Your task to perform on an android device: Empty the shopping cart on target. Add "asus rog" to the cart on target Image 0: 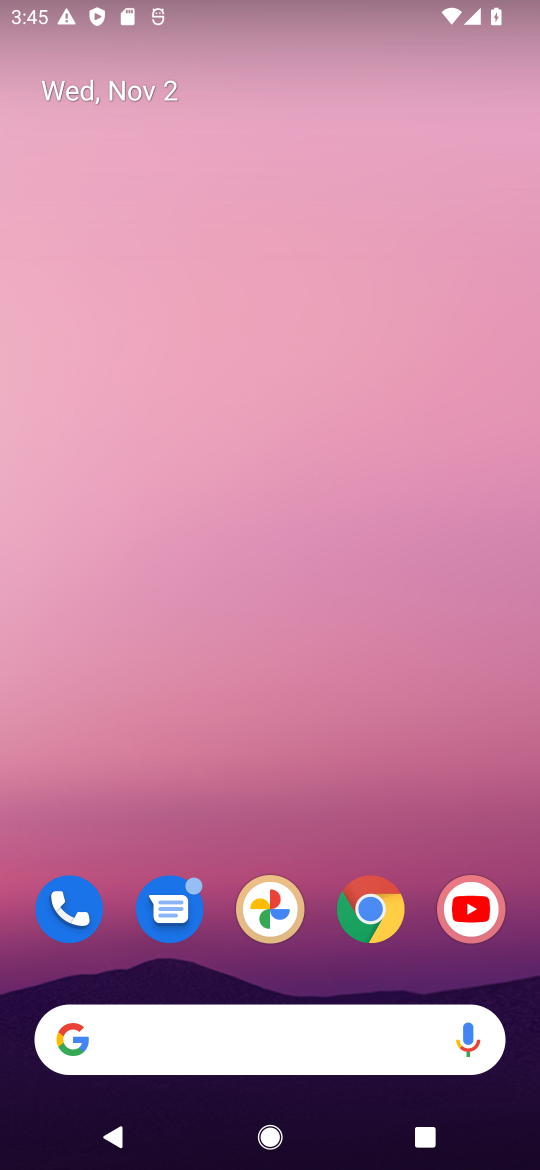
Step 0: click (364, 908)
Your task to perform on an android device: Empty the shopping cart on target. Add "asus rog" to the cart on target Image 1: 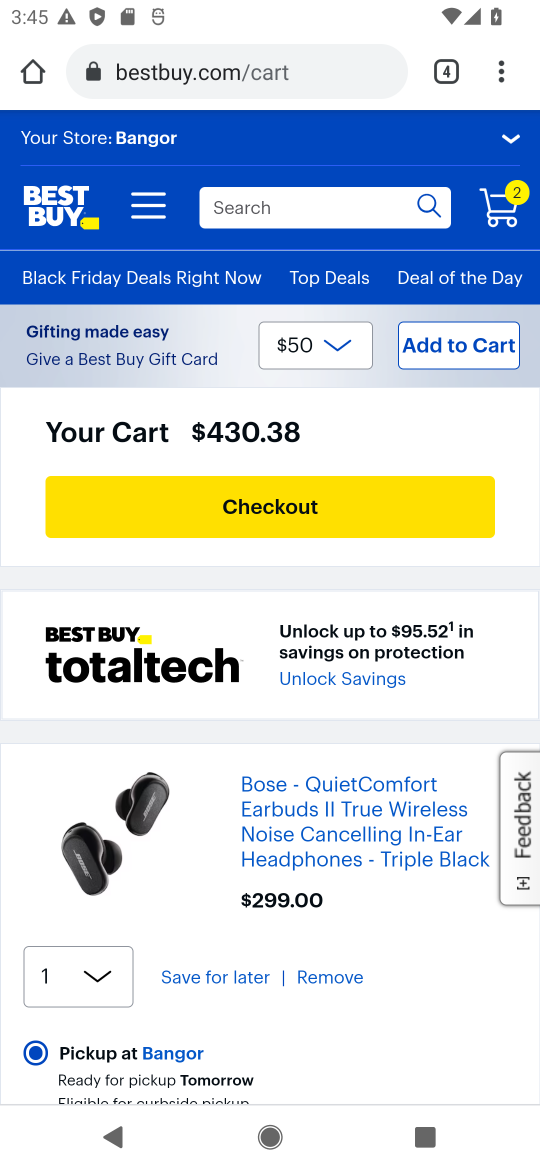
Step 1: click (292, 75)
Your task to perform on an android device: Empty the shopping cart on target. Add "asus rog" to the cart on target Image 2: 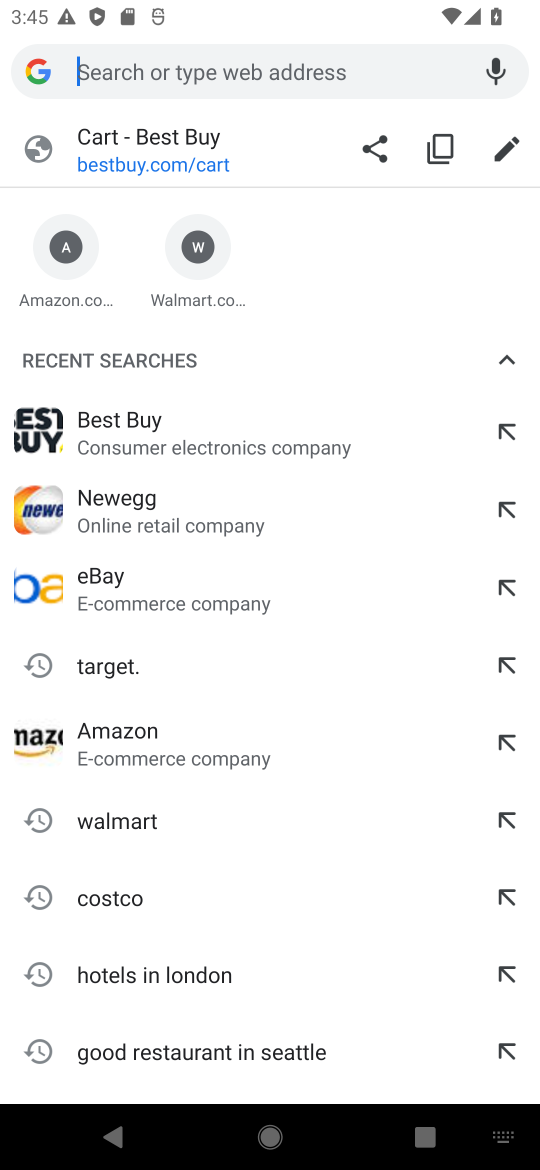
Step 2: click (77, 669)
Your task to perform on an android device: Empty the shopping cart on target. Add "asus rog" to the cart on target Image 3: 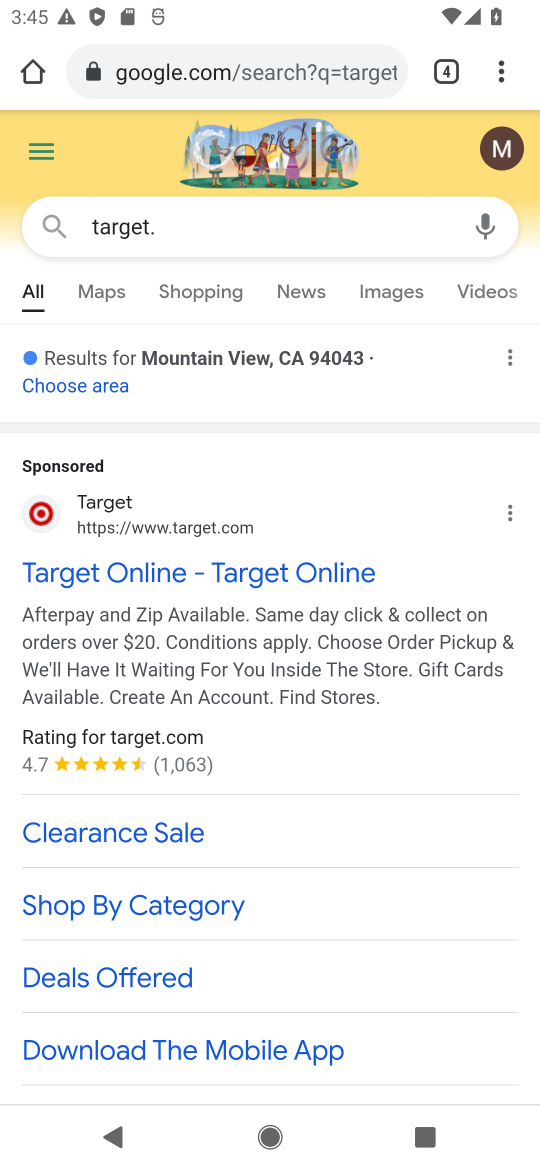
Step 3: click (164, 573)
Your task to perform on an android device: Empty the shopping cart on target. Add "asus rog" to the cart on target Image 4: 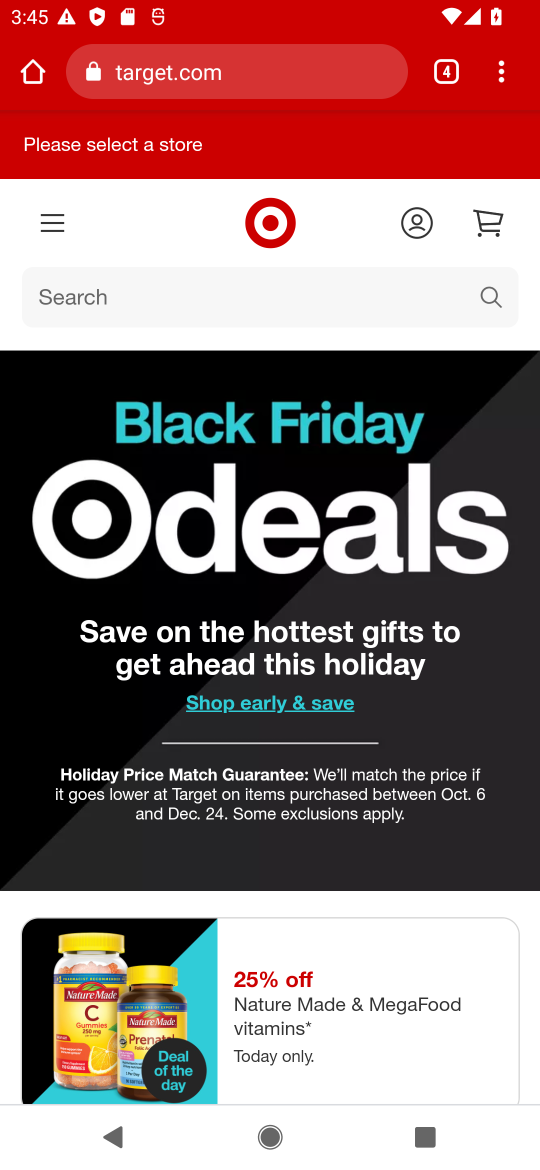
Step 4: click (426, 292)
Your task to perform on an android device: Empty the shopping cart on target. Add "asus rog" to the cart on target Image 5: 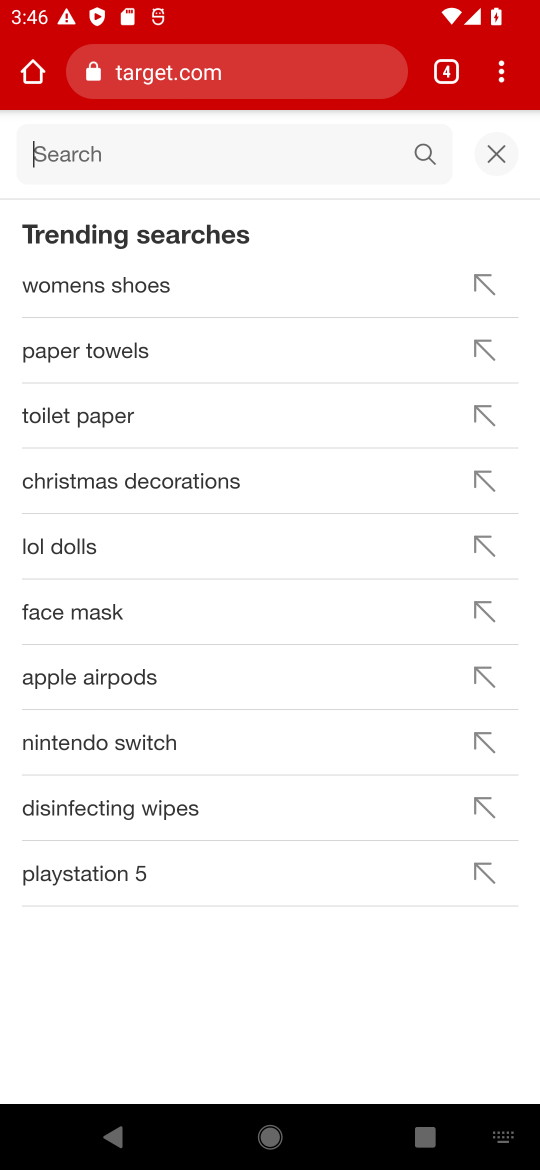
Step 5: click (204, 152)
Your task to perform on an android device: Empty the shopping cart on target. Add "asus rog" to the cart on target Image 6: 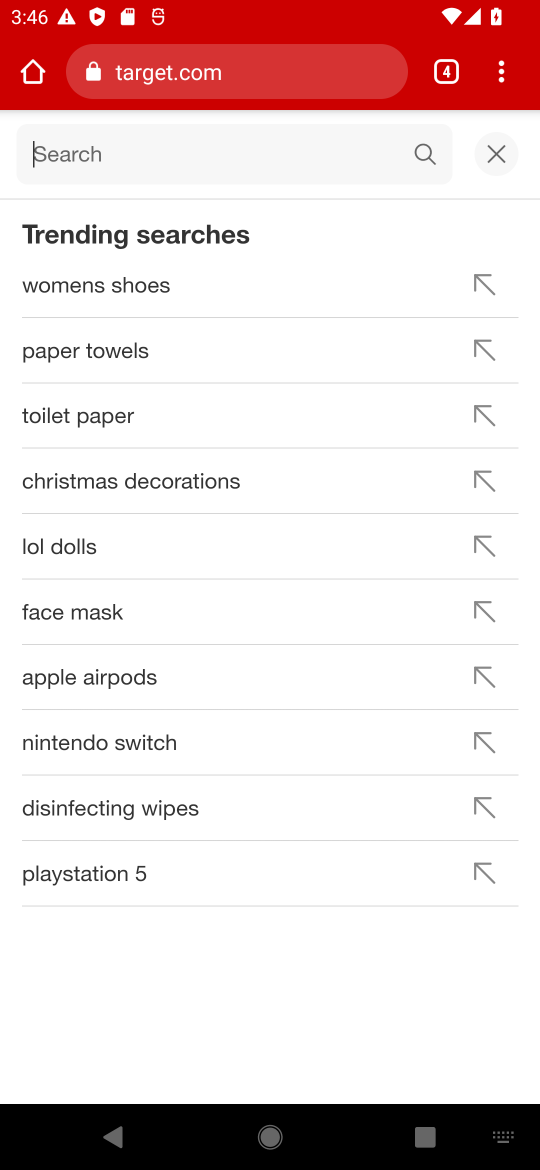
Step 6: type "asus rog"
Your task to perform on an android device: Empty the shopping cart on target. Add "asus rog" to the cart on target Image 7: 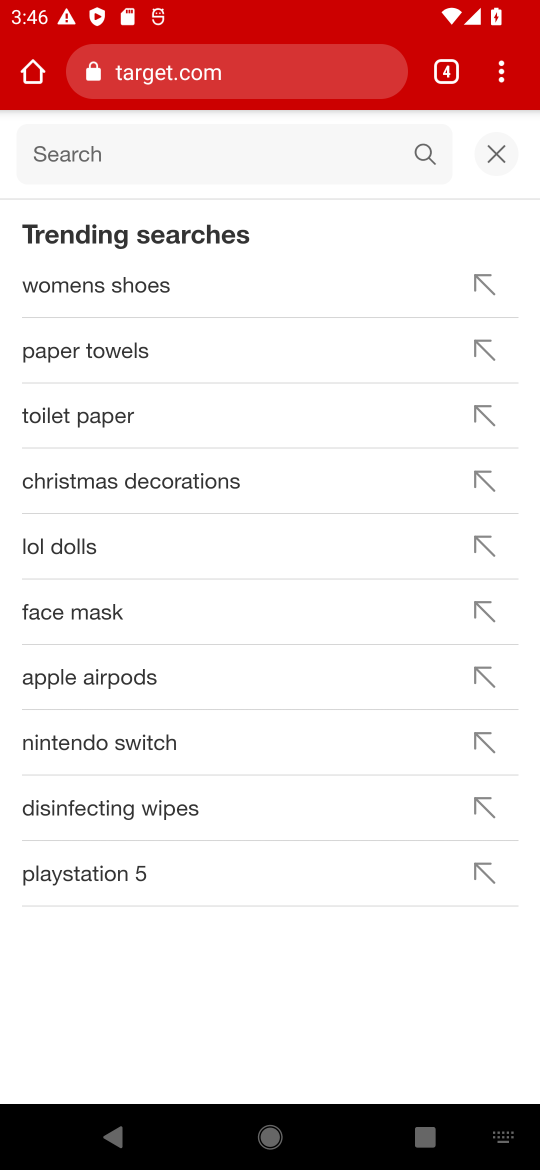
Step 7: press enter
Your task to perform on an android device: Empty the shopping cart on target. Add "asus rog" to the cart on target Image 8: 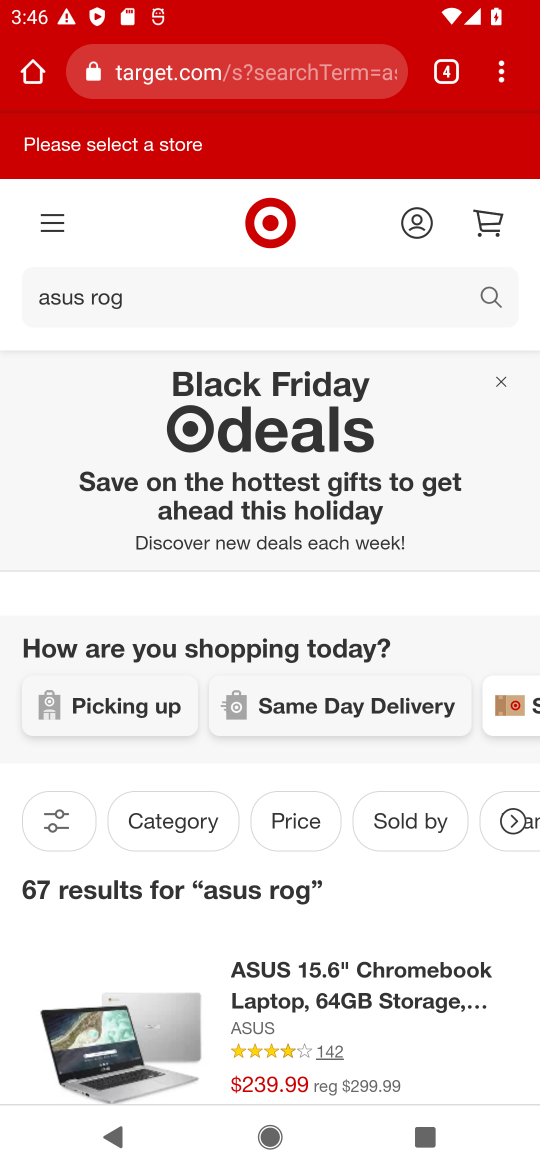
Step 8: drag from (234, 926) to (439, 500)
Your task to perform on an android device: Empty the shopping cart on target. Add "asus rog" to the cart on target Image 9: 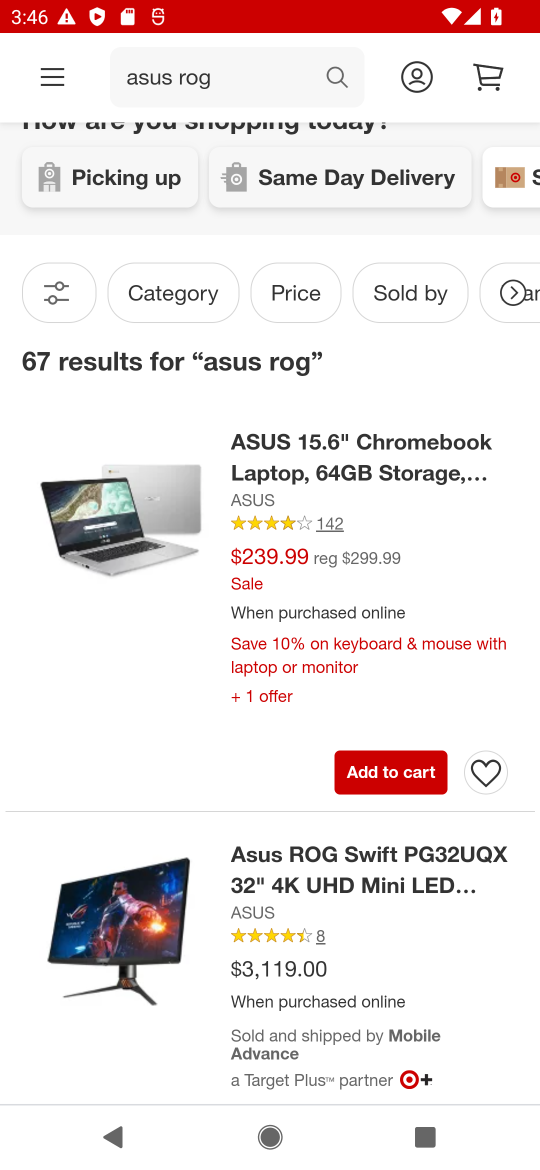
Step 9: click (366, 925)
Your task to perform on an android device: Empty the shopping cart on target. Add "asus rog" to the cart on target Image 10: 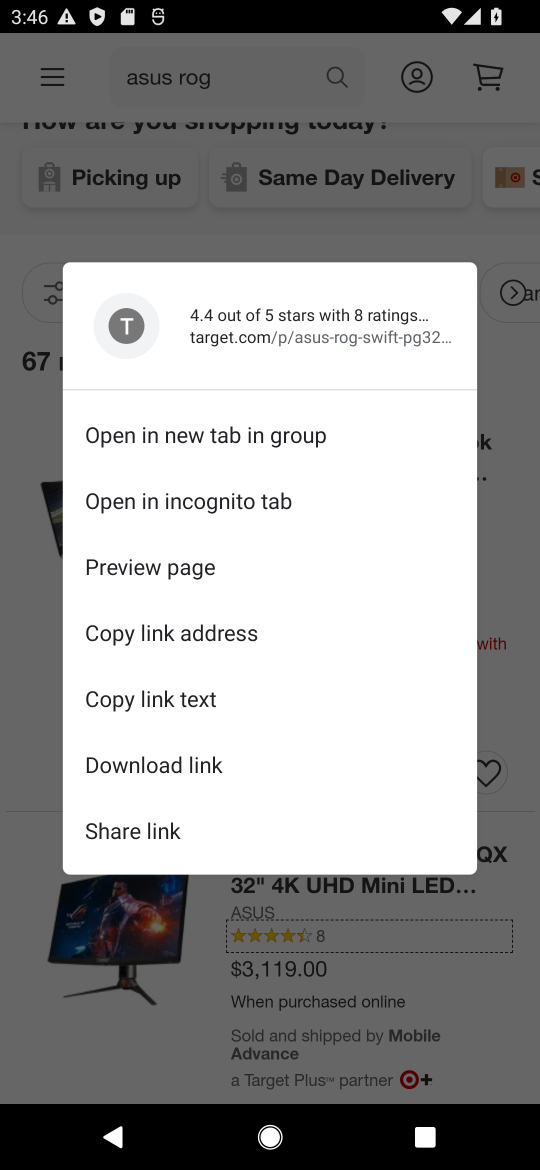
Step 10: click (135, 944)
Your task to perform on an android device: Empty the shopping cart on target. Add "asus rog" to the cart on target Image 11: 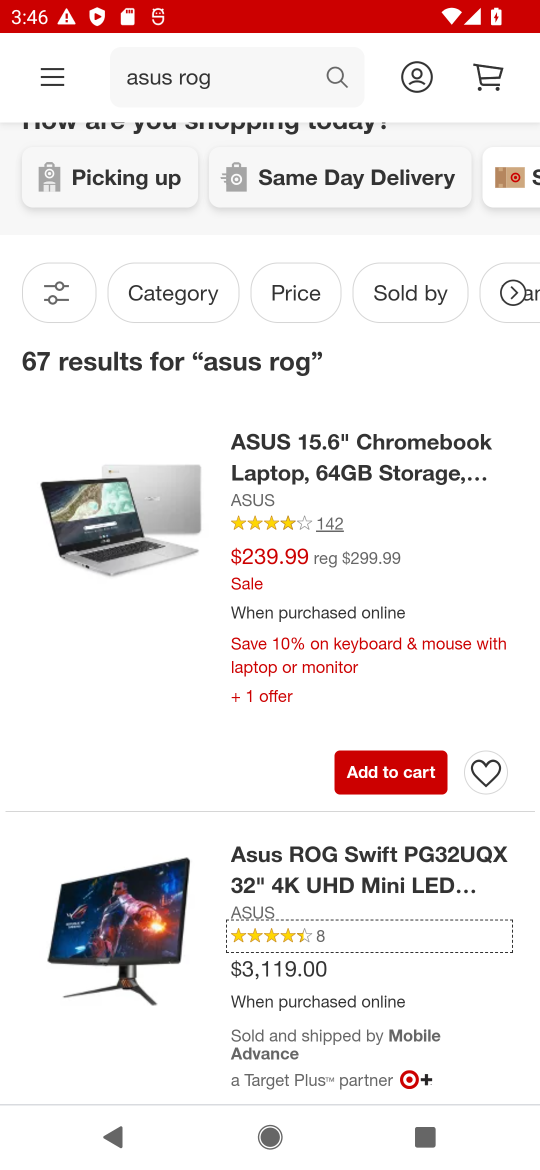
Step 11: drag from (186, 921) to (370, 533)
Your task to perform on an android device: Empty the shopping cart on target. Add "asus rog" to the cart on target Image 12: 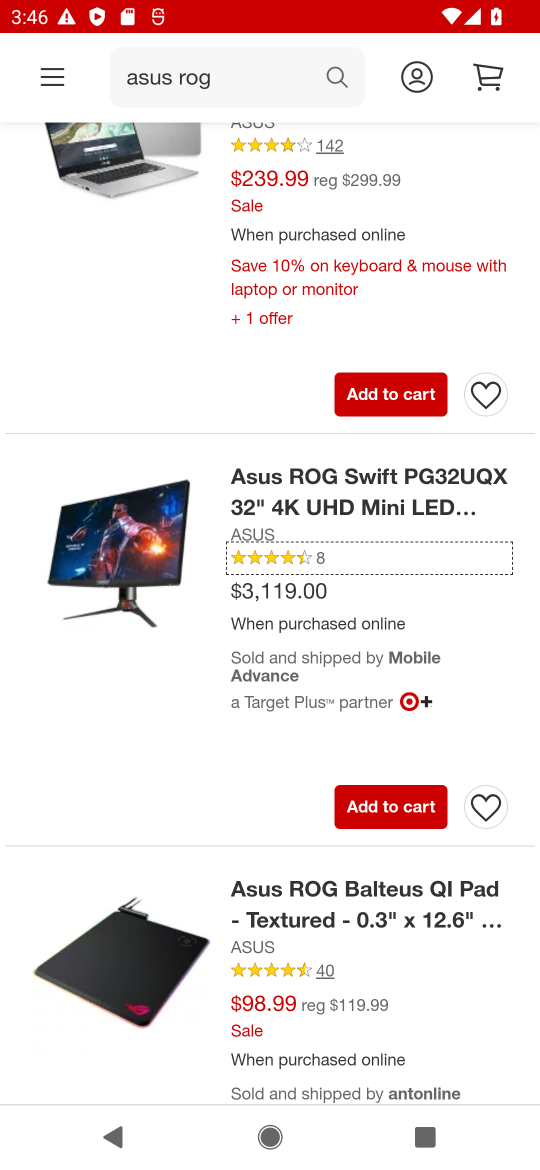
Step 12: click (418, 800)
Your task to perform on an android device: Empty the shopping cart on target. Add "asus rog" to the cart on target Image 13: 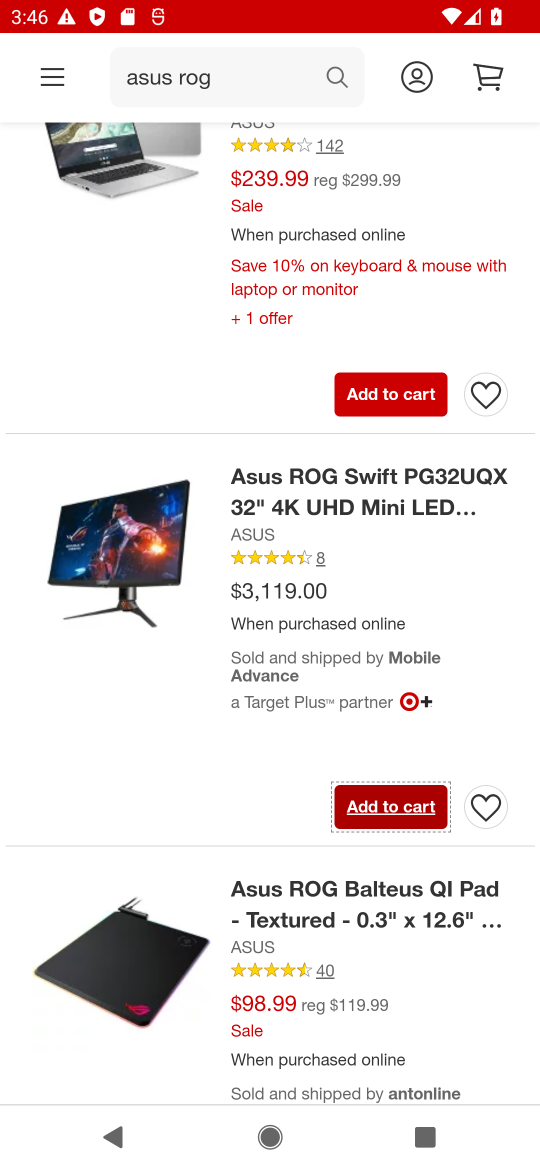
Step 13: click (391, 810)
Your task to perform on an android device: Empty the shopping cart on target. Add "asus rog" to the cart on target Image 14: 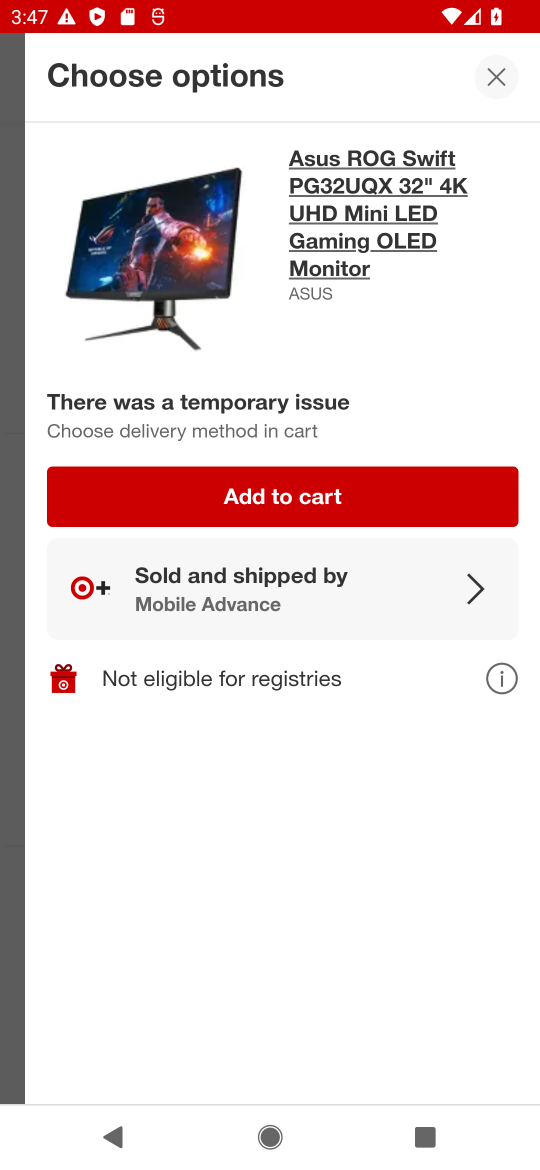
Step 14: click (274, 499)
Your task to perform on an android device: Empty the shopping cart on target. Add "asus rog" to the cart on target Image 15: 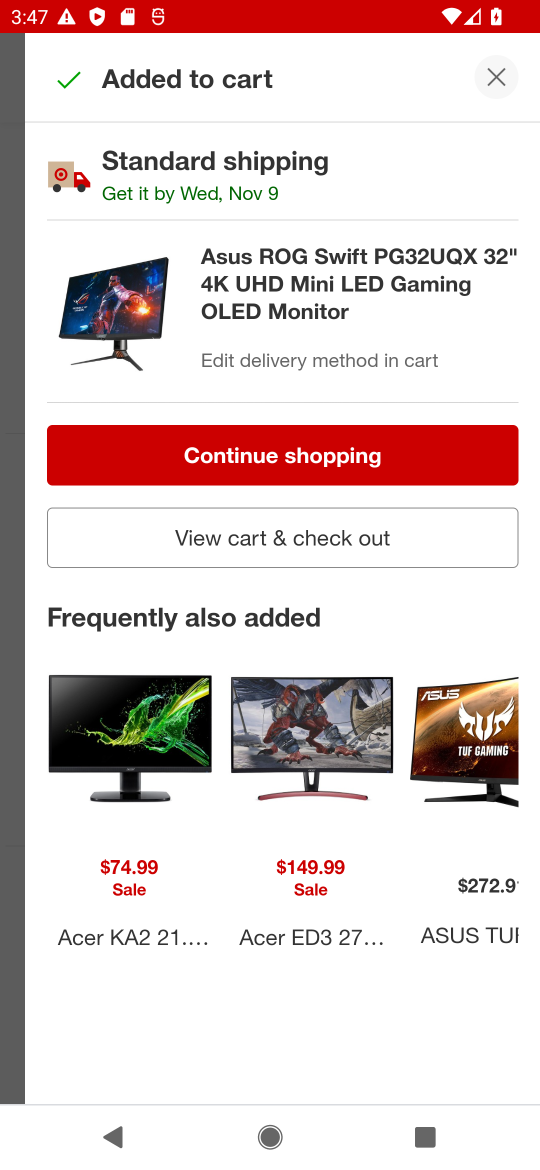
Step 15: task complete